Your task to perform on an android device: Search for sushi restaurants on Maps Image 0: 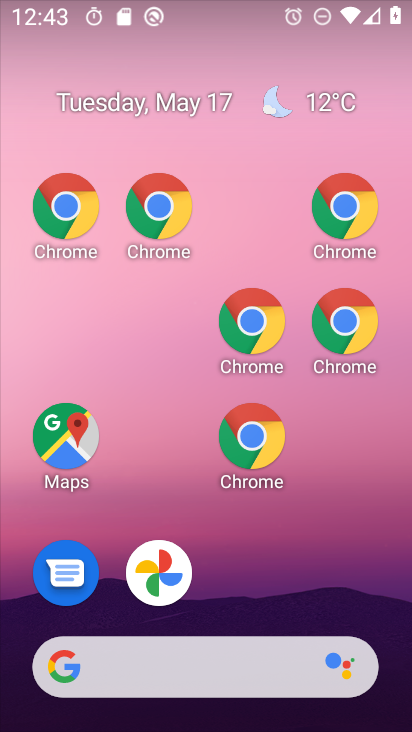
Step 0: press back button
Your task to perform on an android device: Search for sushi restaurants on Maps Image 1: 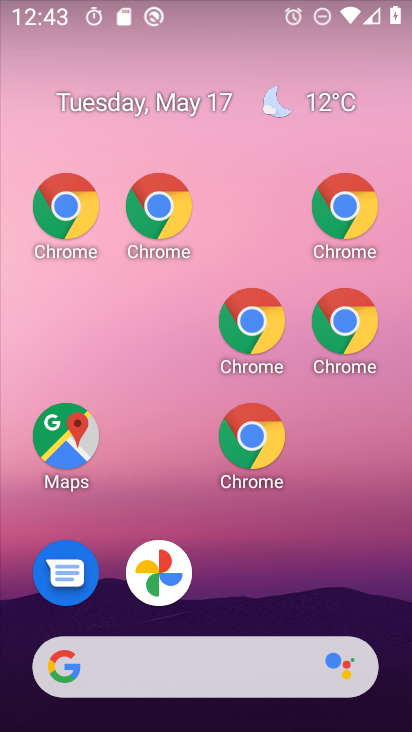
Step 1: drag from (266, 642) to (213, 186)
Your task to perform on an android device: Search for sushi restaurants on Maps Image 2: 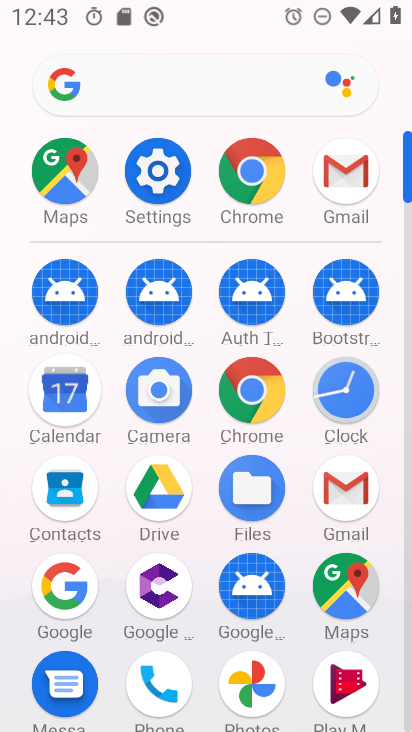
Step 2: click (352, 579)
Your task to perform on an android device: Search for sushi restaurants on Maps Image 3: 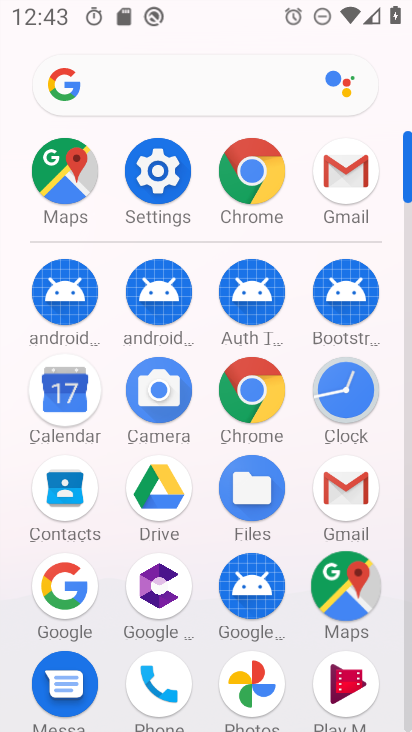
Step 3: click (353, 580)
Your task to perform on an android device: Search for sushi restaurants on Maps Image 4: 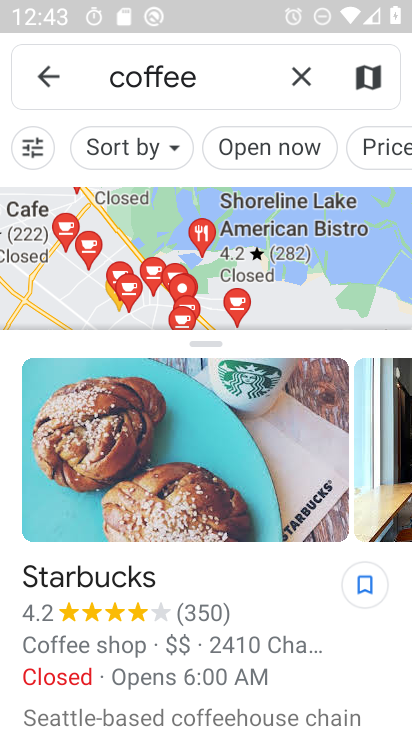
Step 4: drag from (292, 85) to (345, 109)
Your task to perform on an android device: Search for sushi restaurants on Maps Image 5: 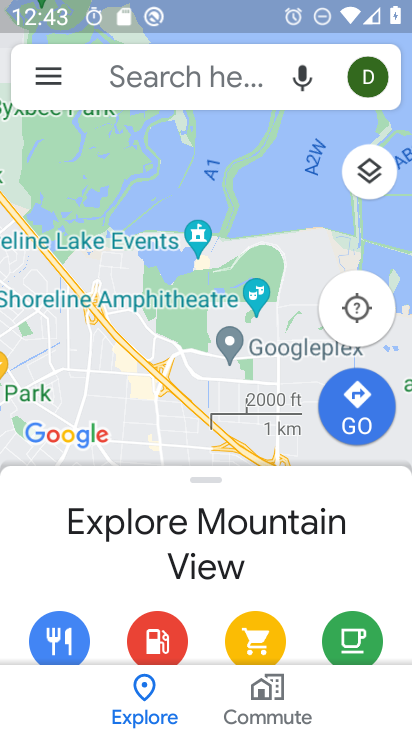
Step 5: click (128, 75)
Your task to perform on an android device: Search for sushi restaurants on Maps Image 6: 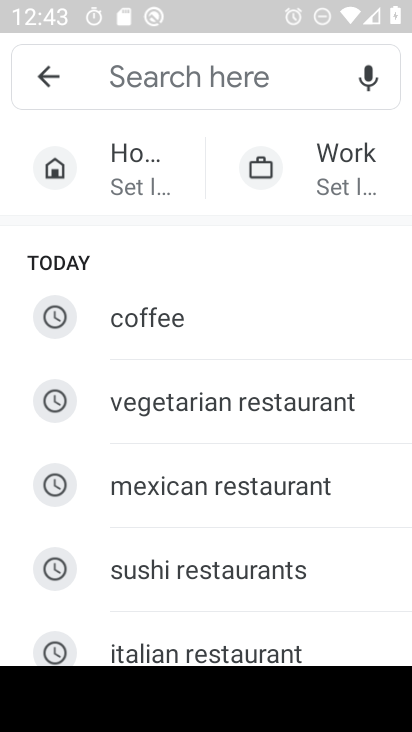
Step 6: click (193, 574)
Your task to perform on an android device: Search for sushi restaurants on Maps Image 7: 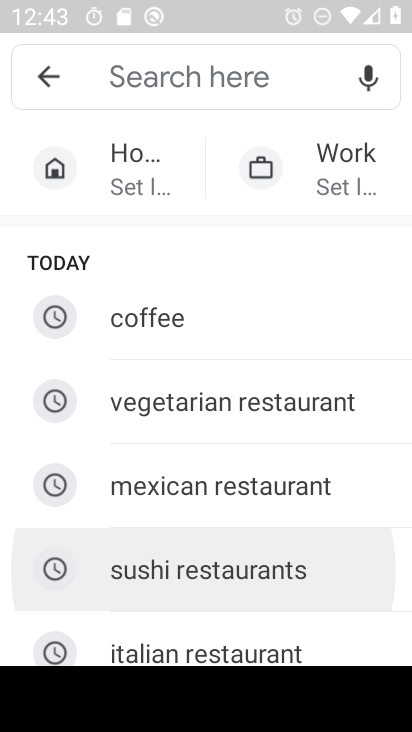
Step 7: click (182, 567)
Your task to perform on an android device: Search for sushi restaurants on Maps Image 8: 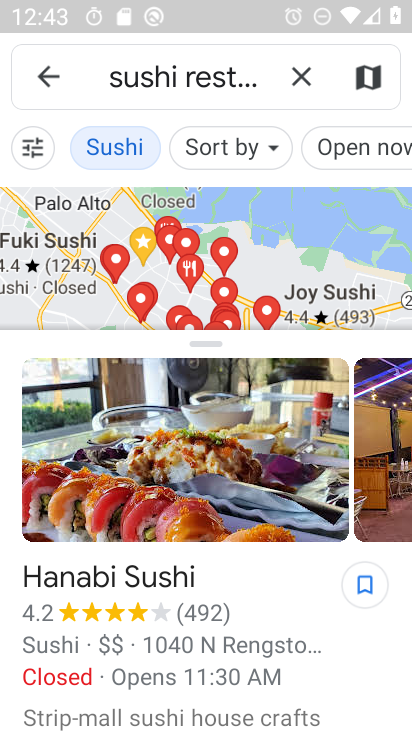
Step 8: task complete